Your task to perform on an android device: turn off notifications settings in the gmail app Image 0: 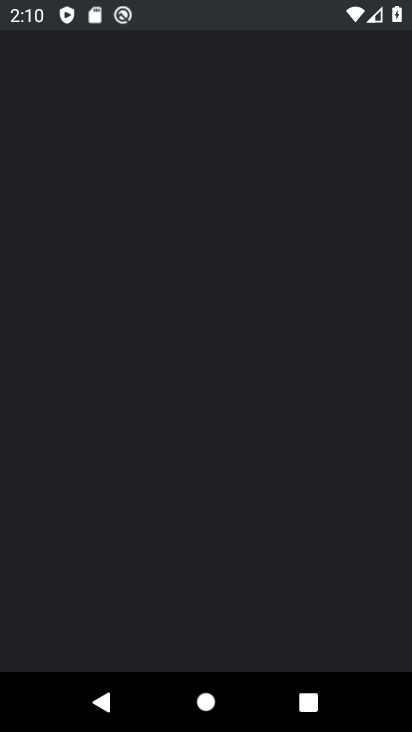
Step 0: click (253, 513)
Your task to perform on an android device: turn off notifications settings in the gmail app Image 1: 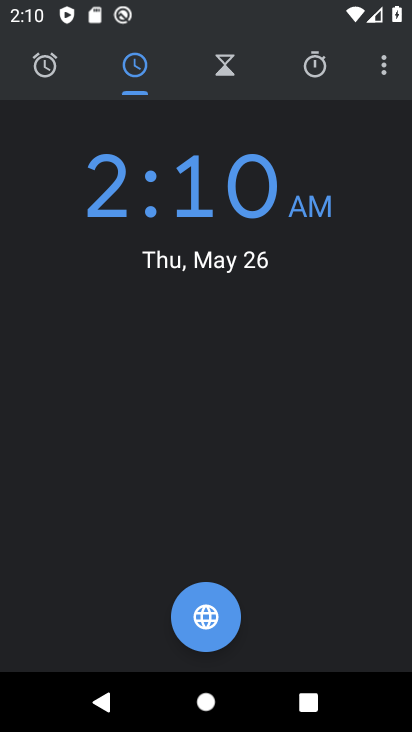
Step 1: press home button
Your task to perform on an android device: turn off notifications settings in the gmail app Image 2: 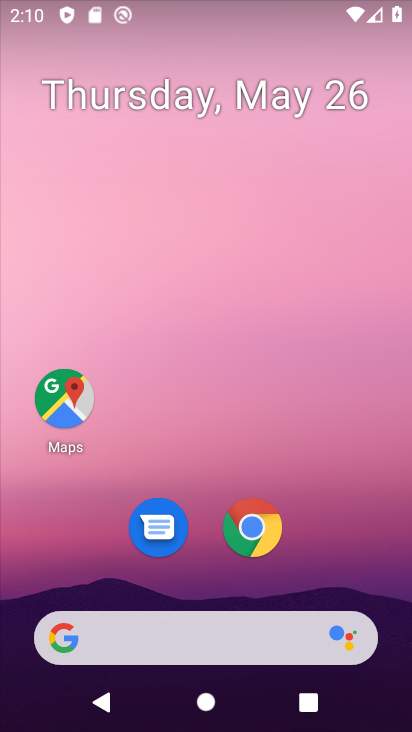
Step 2: drag from (208, 464) to (252, 71)
Your task to perform on an android device: turn off notifications settings in the gmail app Image 3: 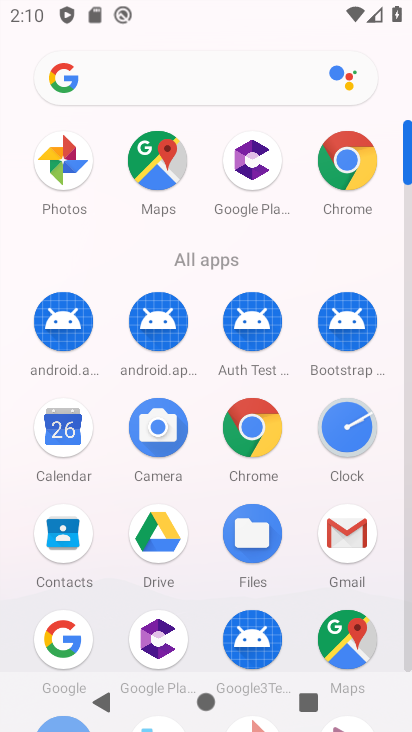
Step 3: click (334, 548)
Your task to perform on an android device: turn off notifications settings in the gmail app Image 4: 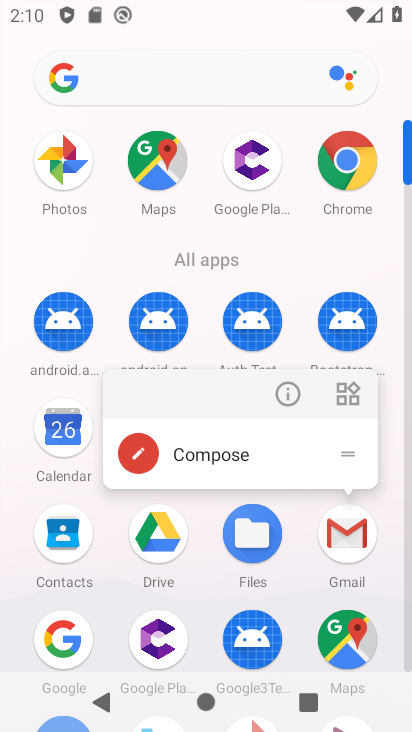
Step 4: click (290, 396)
Your task to perform on an android device: turn off notifications settings in the gmail app Image 5: 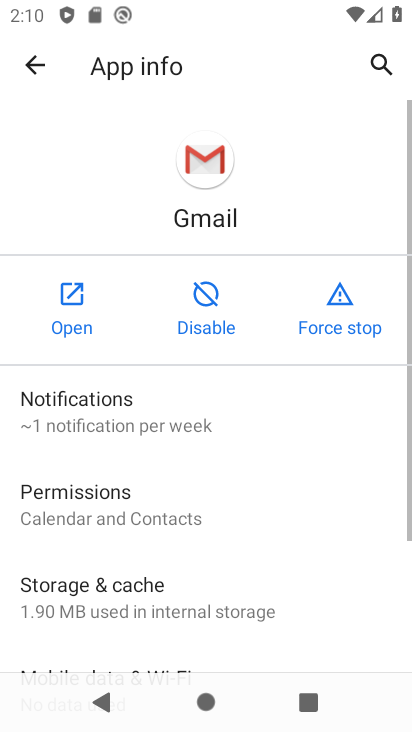
Step 5: click (118, 414)
Your task to perform on an android device: turn off notifications settings in the gmail app Image 6: 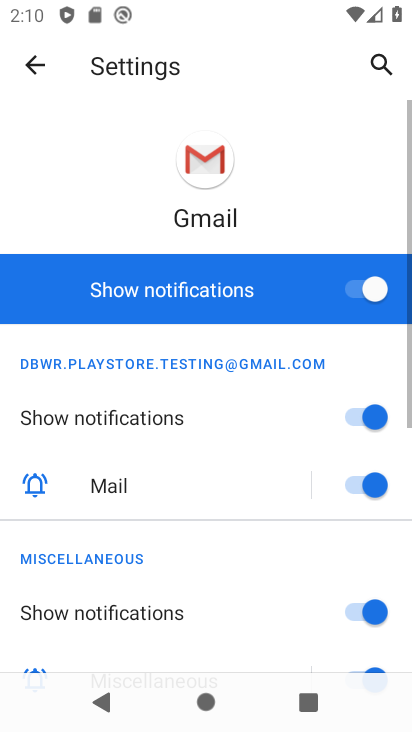
Step 6: click (369, 292)
Your task to perform on an android device: turn off notifications settings in the gmail app Image 7: 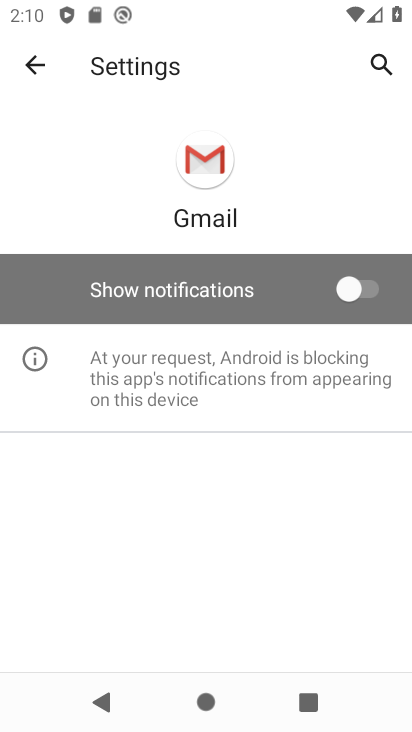
Step 7: task complete